Your task to perform on an android device: Go to network settings Image 0: 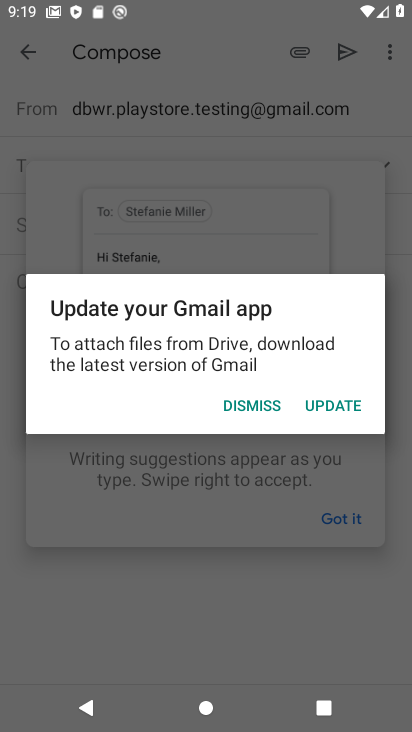
Step 0: press home button
Your task to perform on an android device: Go to network settings Image 1: 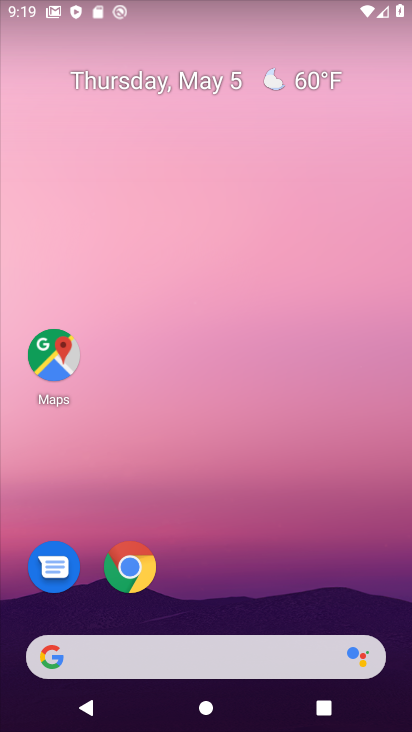
Step 1: drag from (175, 606) to (203, 137)
Your task to perform on an android device: Go to network settings Image 2: 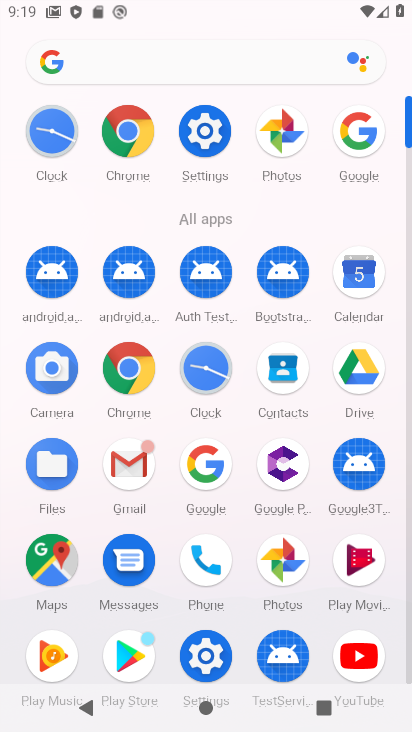
Step 2: click (207, 156)
Your task to perform on an android device: Go to network settings Image 3: 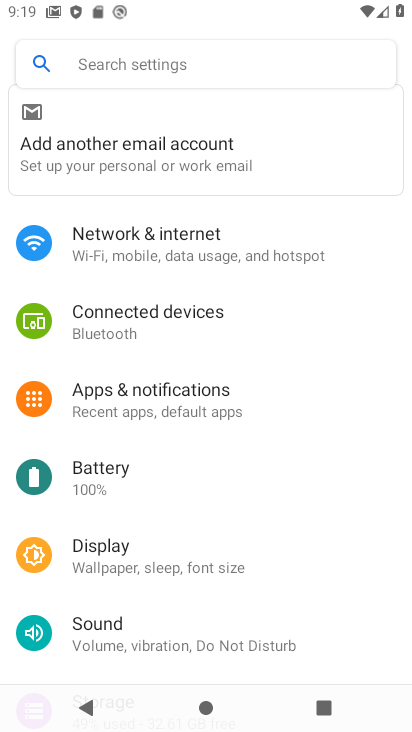
Step 3: click (203, 252)
Your task to perform on an android device: Go to network settings Image 4: 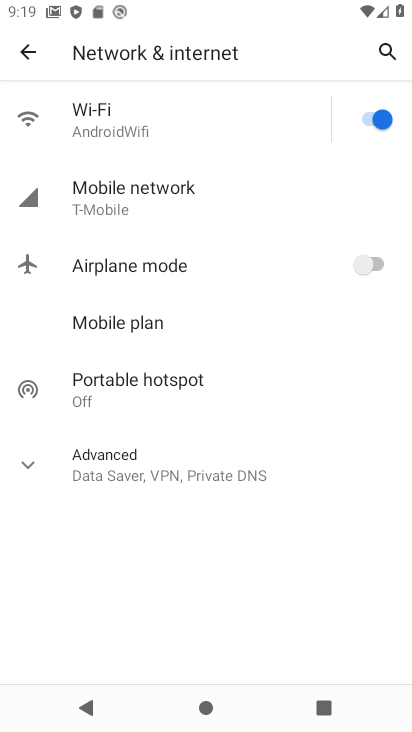
Step 4: drag from (165, 574) to (184, 250)
Your task to perform on an android device: Go to network settings Image 5: 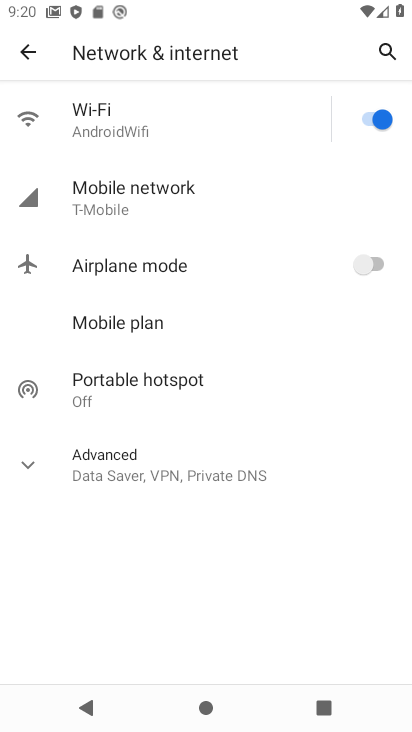
Step 5: click (172, 213)
Your task to perform on an android device: Go to network settings Image 6: 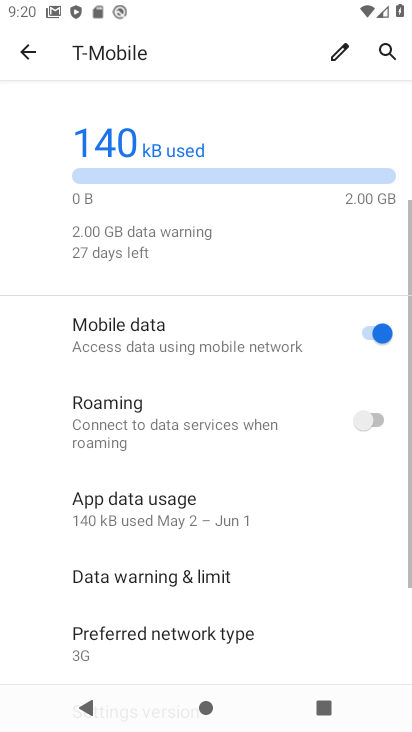
Step 6: task complete